Your task to perform on an android device: Show me the alarms in the clock app Image 0: 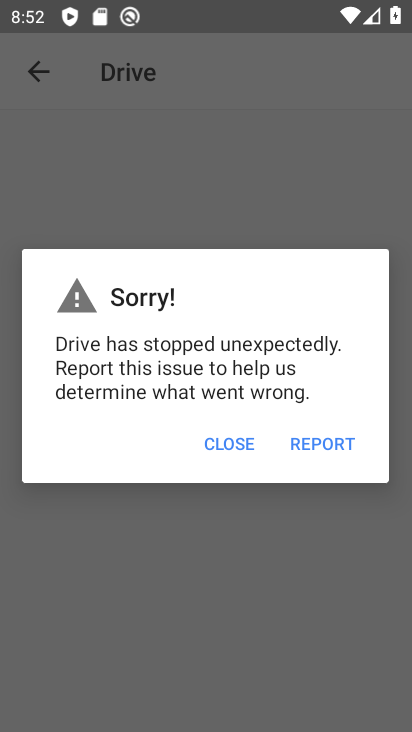
Step 0: click (212, 430)
Your task to perform on an android device: Show me the alarms in the clock app Image 1: 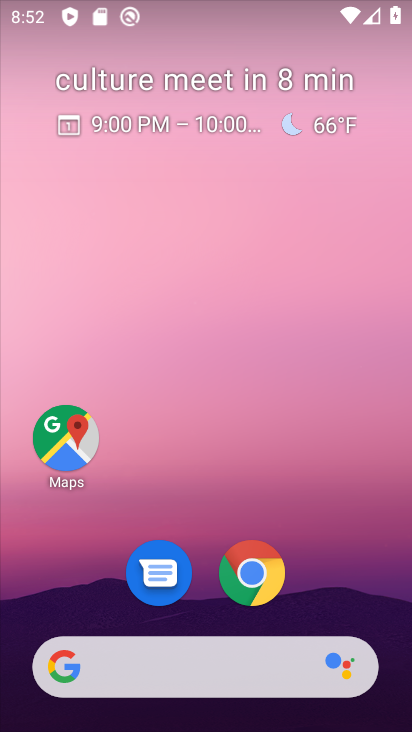
Step 1: drag from (240, 532) to (293, 42)
Your task to perform on an android device: Show me the alarms in the clock app Image 2: 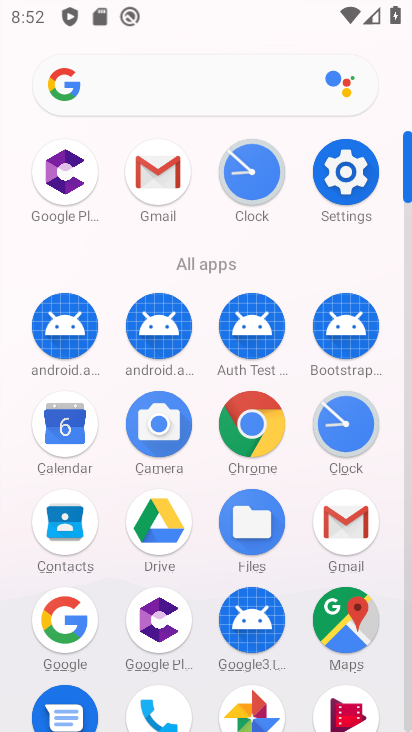
Step 2: click (248, 178)
Your task to perform on an android device: Show me the alarms in the clock app Image 3: 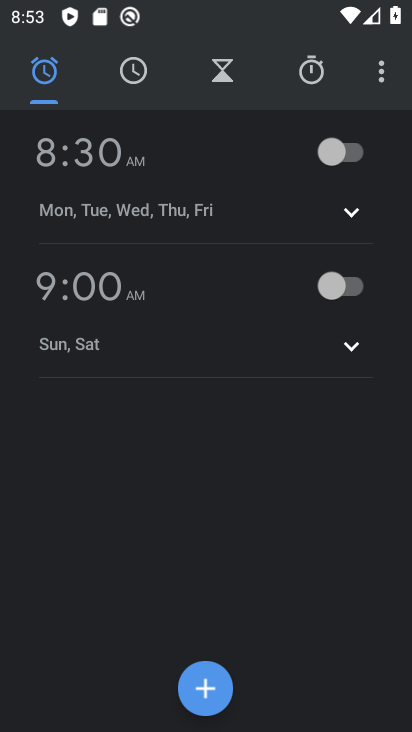
Step 3: task complete